Your task to perform on an android device: Search for hotels in Denver Image 0: 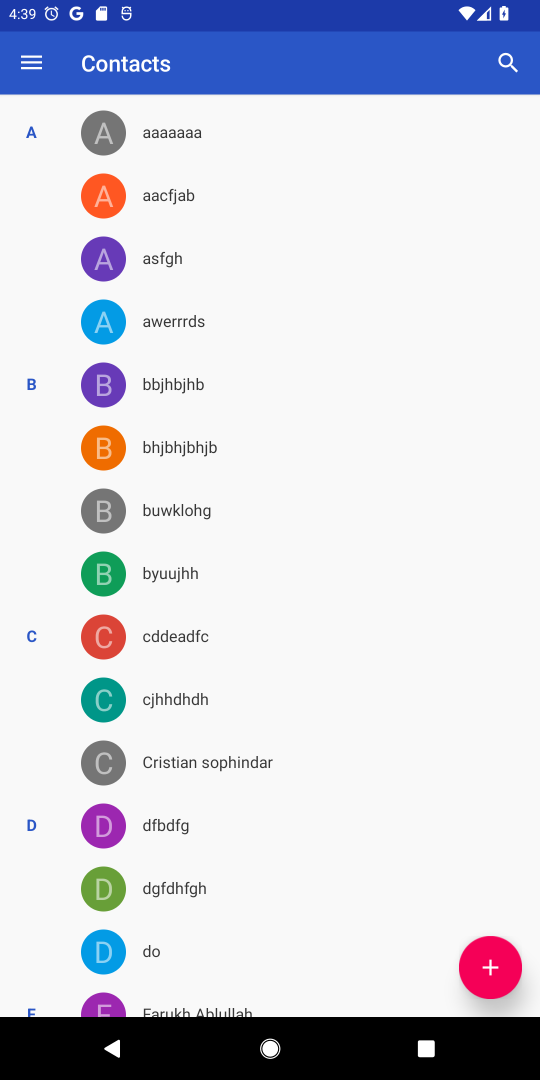
Step 0: press home button
Your task to perform on an android device: Search for hotels in Denver Image 1: 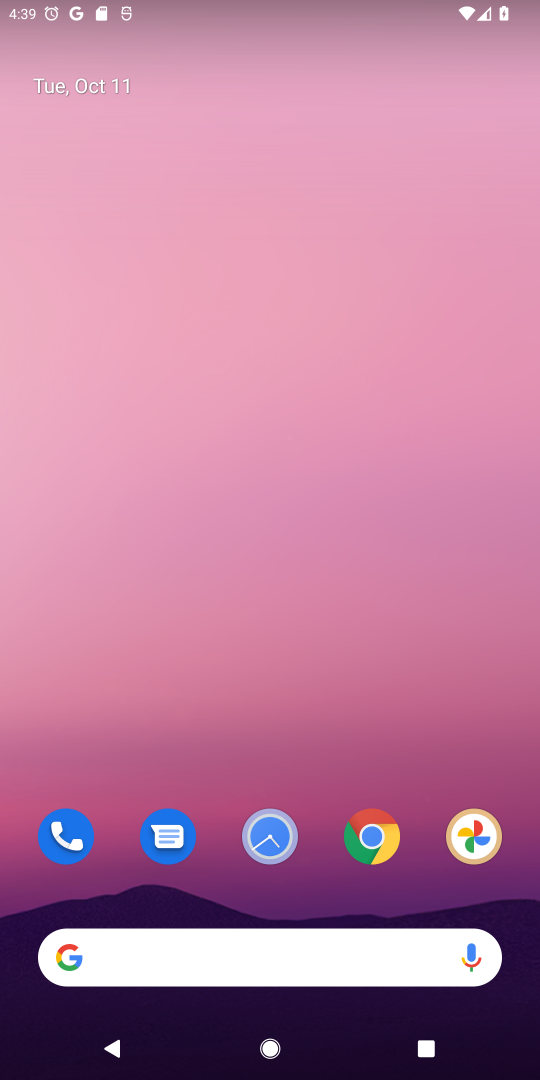
Step 1: click (296, 967)
Your task to perform on an android device: Search for hotels in Denver Image 2: 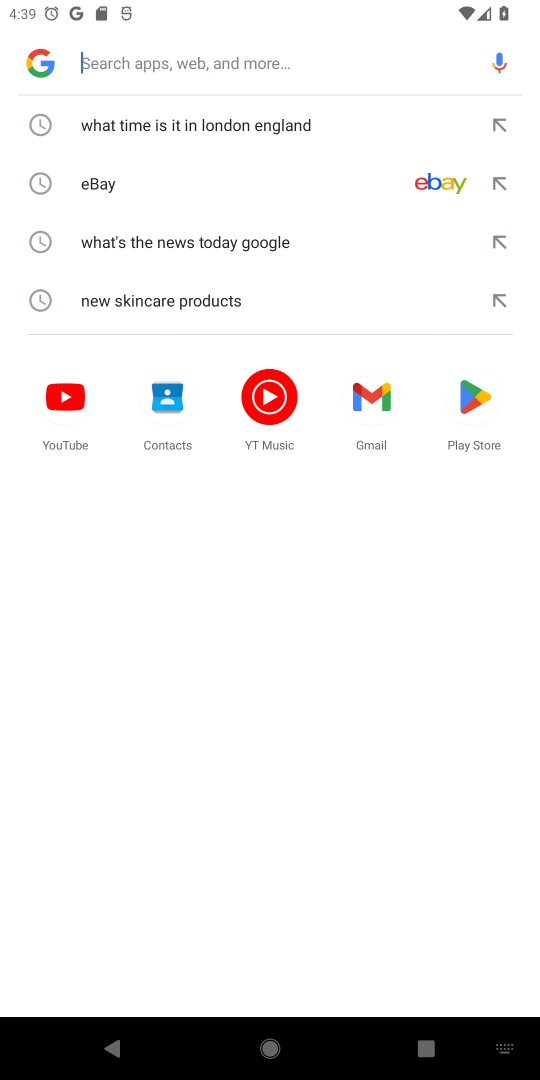
Step 2: type "Search for hotels in Denver"
Your task to perform on an android device: Search for hotels in Denver Image 3: 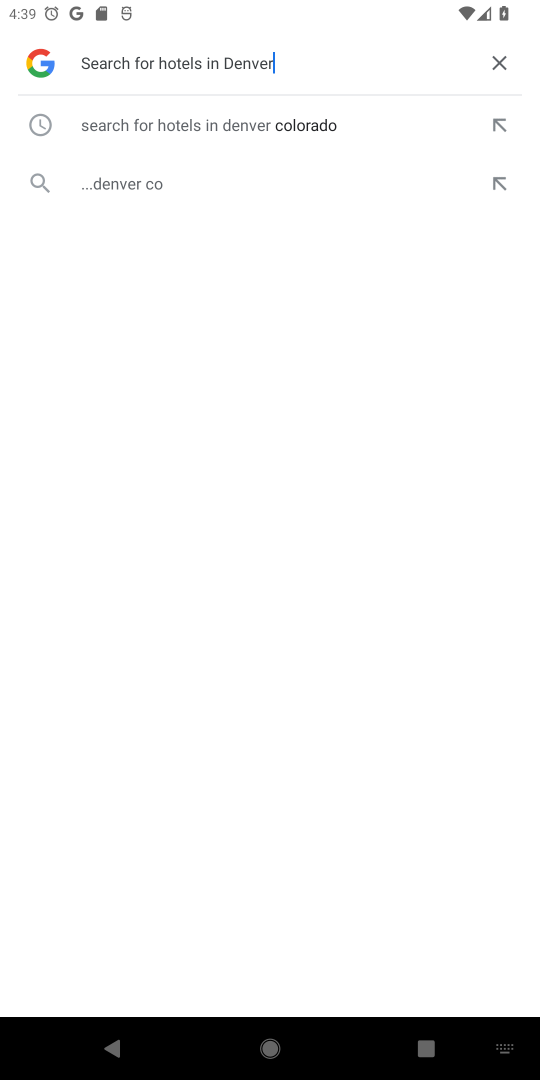
Step 3: click (143, 130)
Your task to perform on an android device: Search for hotels in Denver Image 4: 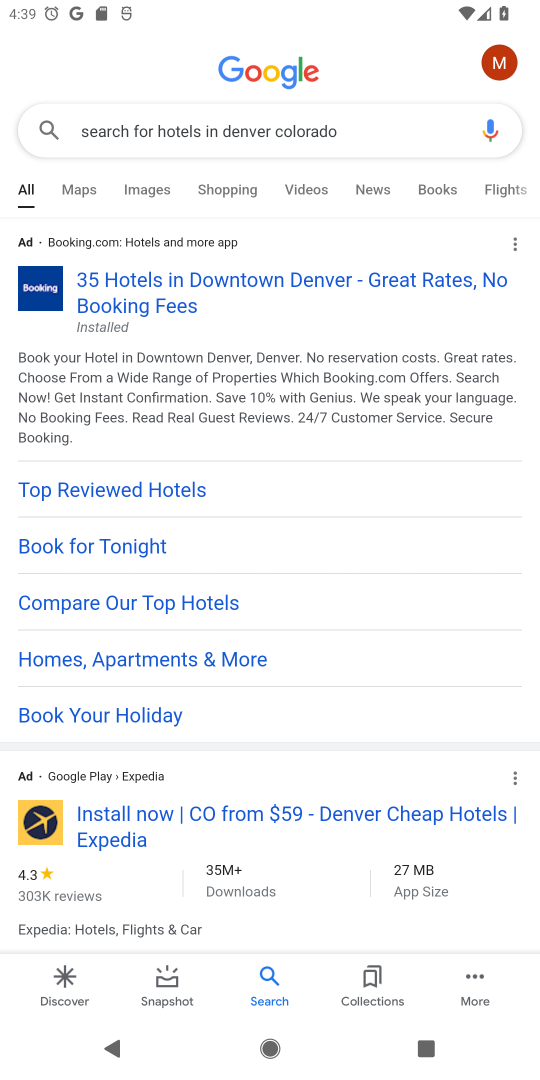
Step 4: task complete